Your task to perform on an android device: set the stopwatch Image 0: 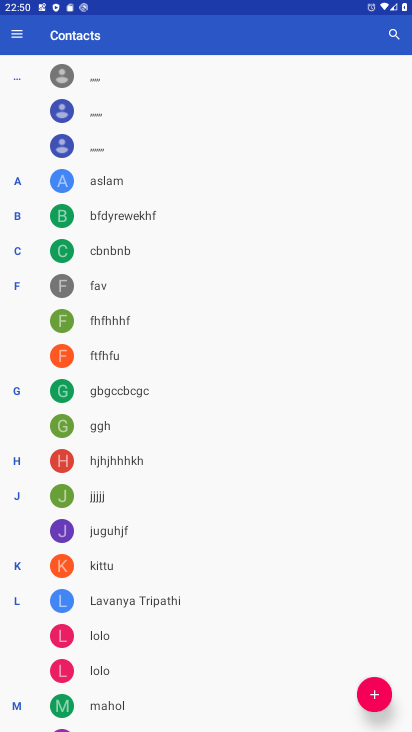
Step 0: press home button
Your task to perform on an android device: set the stopwatch Image 1: 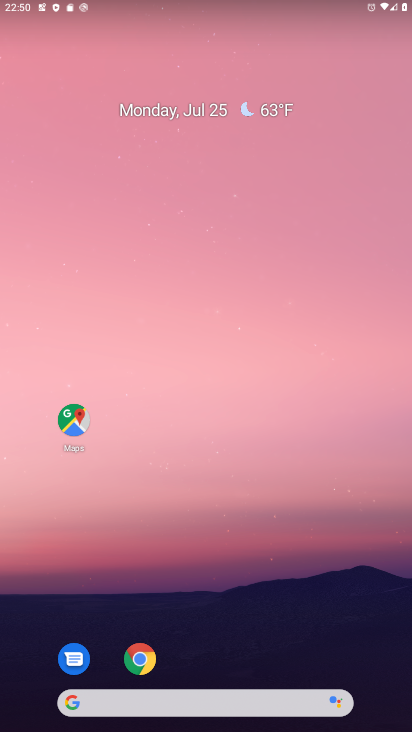
Step 1: drag from (227, 726) to (215, 135)
Your task to perform on an android device: set the stopwatch Image 2: 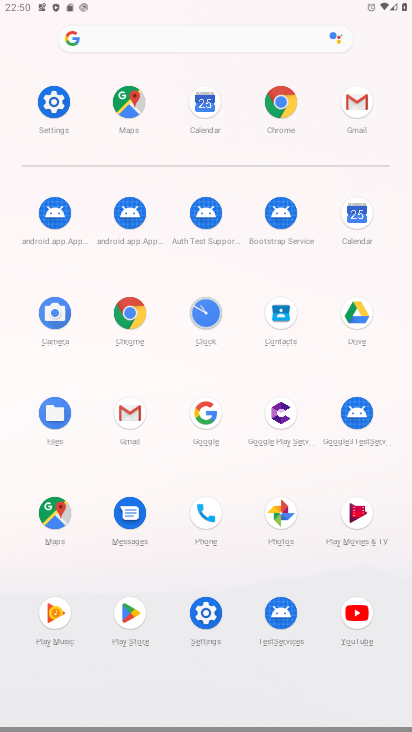
Step 2: click (207, 309)
Your task to perform on an android device: set the stopwatch Image 3: 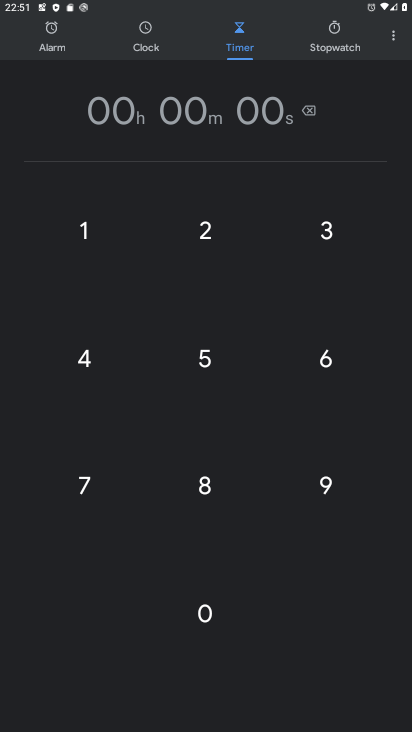
Step 3: click (198, 235)
Your task to perform on an android device: set the stopwatch Image 4: 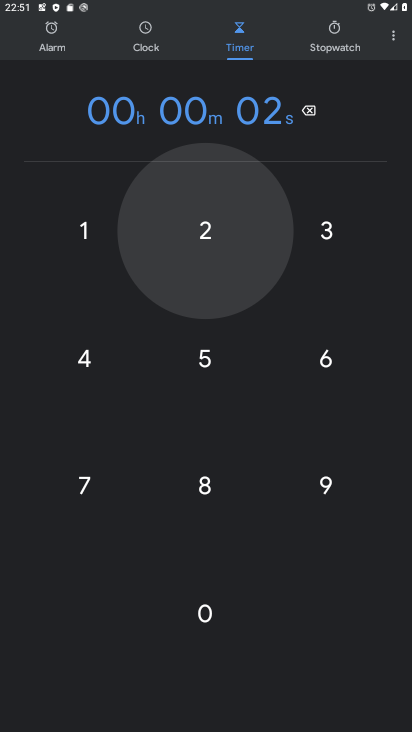
Step 4: click (210, 352)
Your task to perform on an android device: set the stopwatch Image 5: 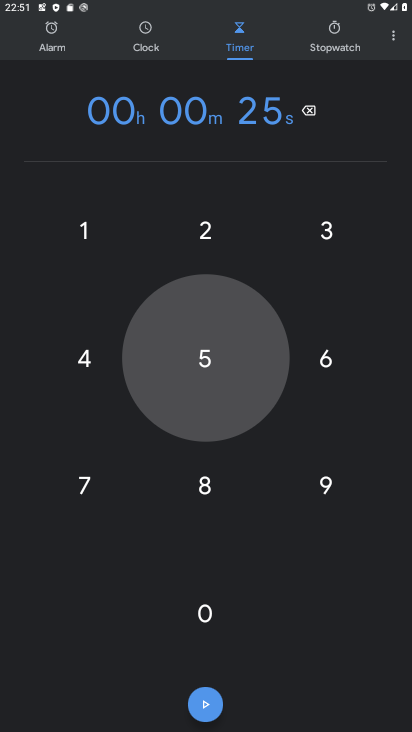
Step 5: click (322, 367)
Your task to perform on an android device: set the stopwatch Image 6: 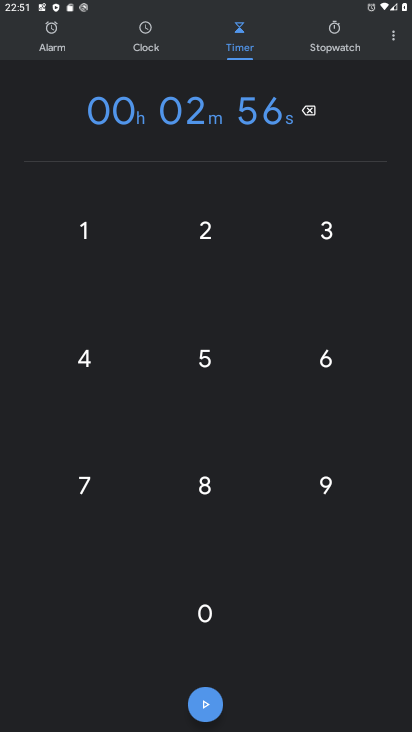
Step 6: click (336, 34)
Your task to perform on an android device: set the stopwatch Image 7: 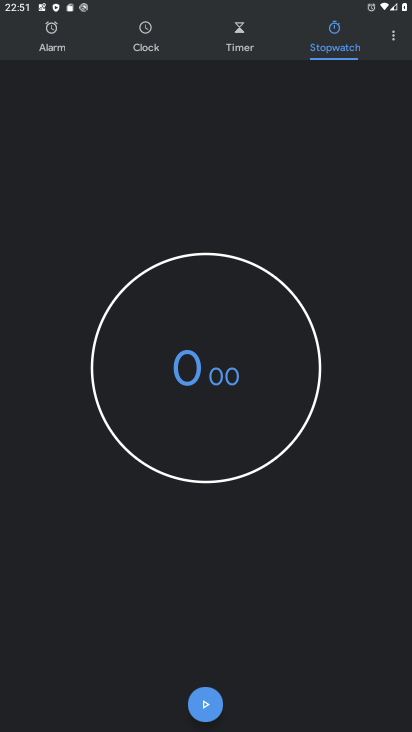
Step 7: click (198, 386)
Your task to perform on an android device: set the stopwatch Image 8: 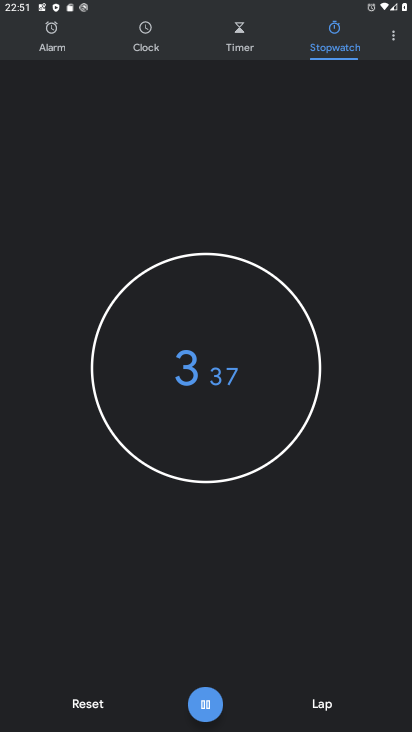
Step 8: type "87878"
Your task to perform on an android device: set the stopwatch Image 9: 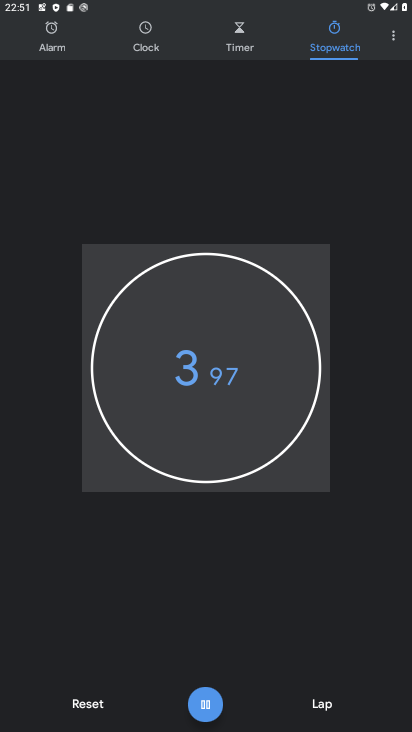
Step 9: type ""
Your task to perform on an android device: set the stopwatch Image 10: 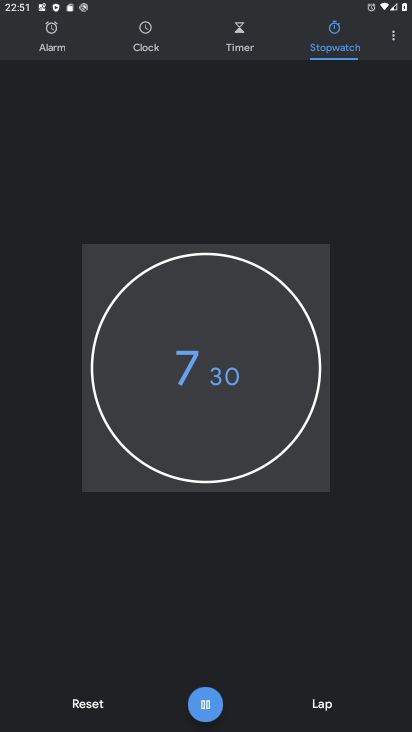
Step 10: task complete